Your task to perform on an android device: turn on javascript in the chrome app Image 0: 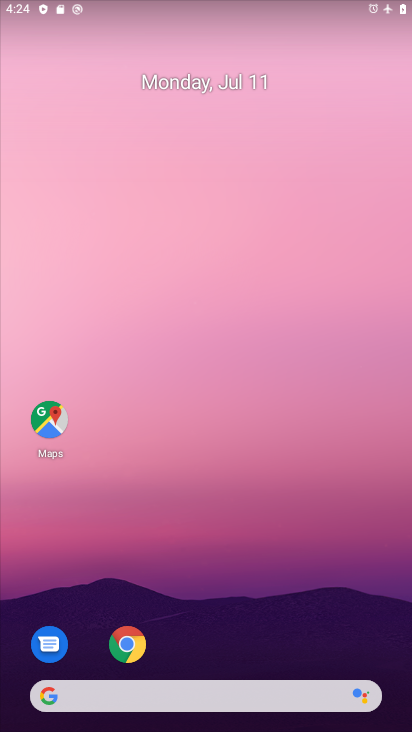
Step 0: drag from (324, 711) to (369, 26)
Your task to perform on an android device: turn on javascript in the chrome app Image 1: 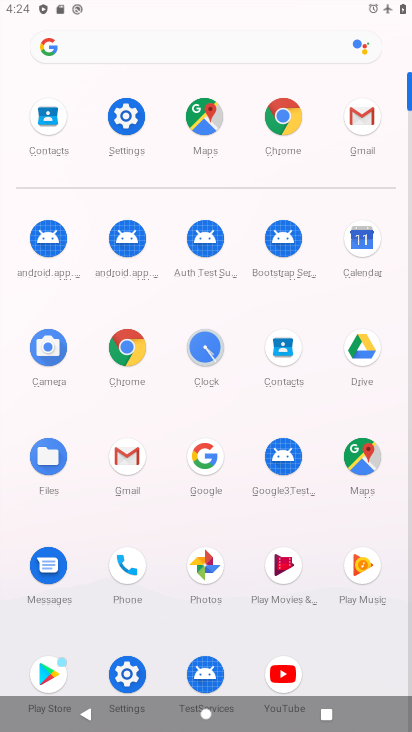
Step 1: click (139, 346)
Your task to perform on an android device: turn on javascript in the chrome app Image 2: 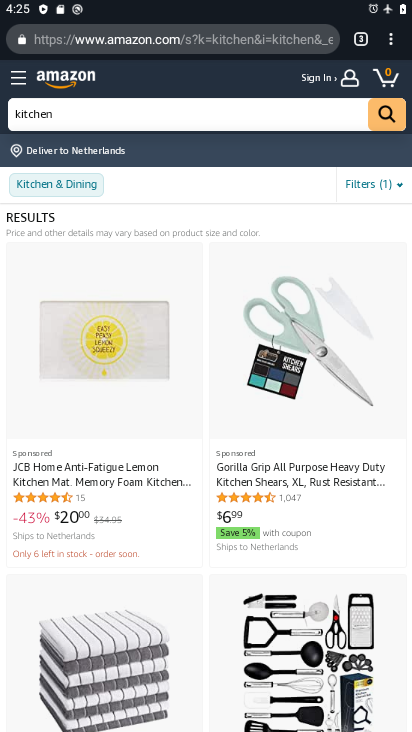
Step 2: drag from (392, 35) to (262, 440)
Your task to perform on an android device: turn on javascript in the chrome app Image 3: 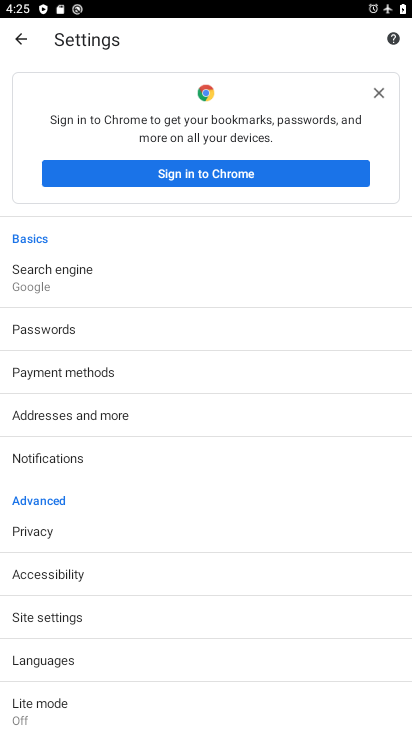
Step 3: click (63, 622)
Your task to perform on an android device: turn on javascript in the chrome app Image 4: 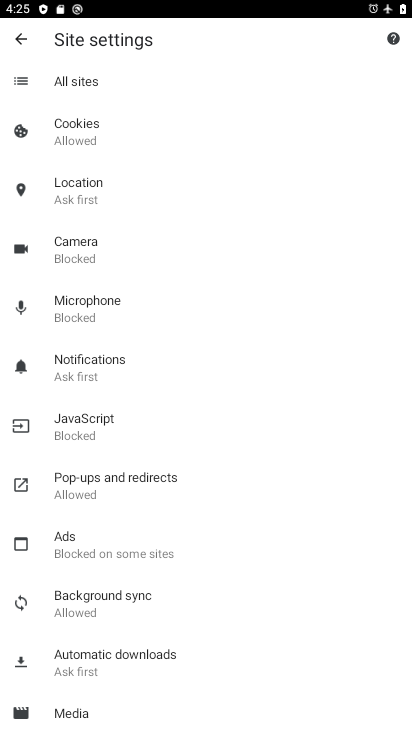
Step 4: click (122, 425)
Your task to perform on an android device: turn on javascript in the chrome app Image 5: 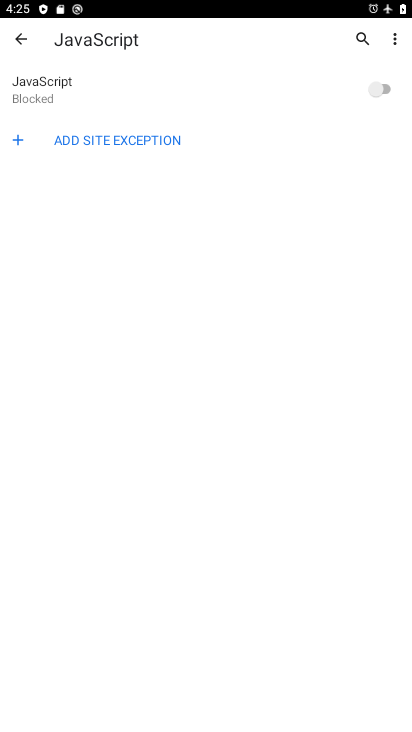
Step 5: click (378, 86)
Your task to perform on an android device: turn on javascript in the chrome app Image 6: 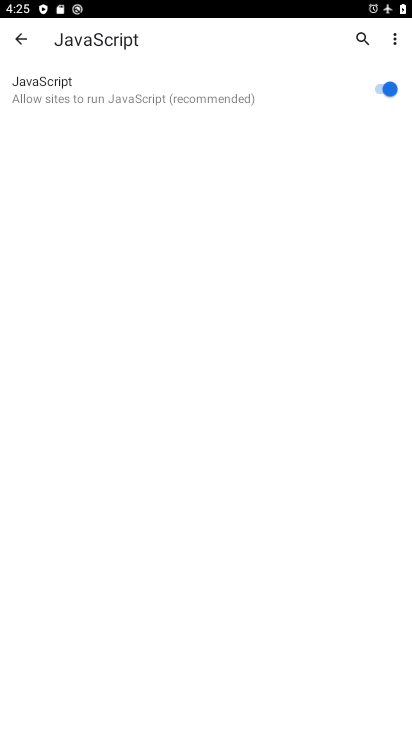
Step 6: task complete